Your task to perform on an android device: find photos in the google photos app Image 0: 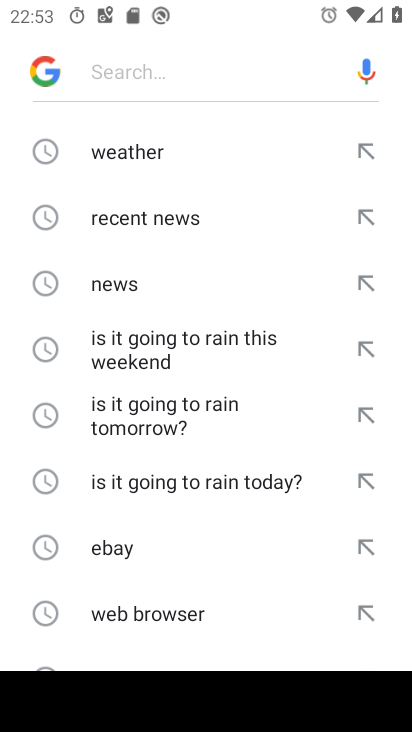
Step 0: press home button
Your task to perform on an android device: find photos in the google photos app Image 1: 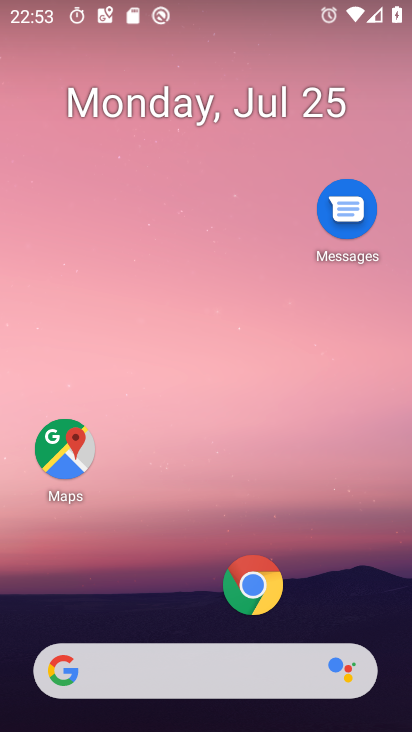
Step 1: drag from (152, 618) to (270, 150)
Your task to perform on an android device: find photos in the google photos app Image 2: 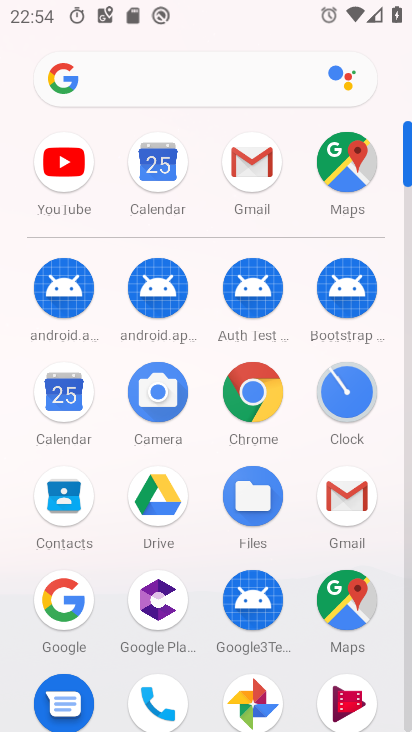
Step 2: drag from (212, 600) to (318, 153)
Your task to perform on an android device: find photos in the google photos app Image 3: 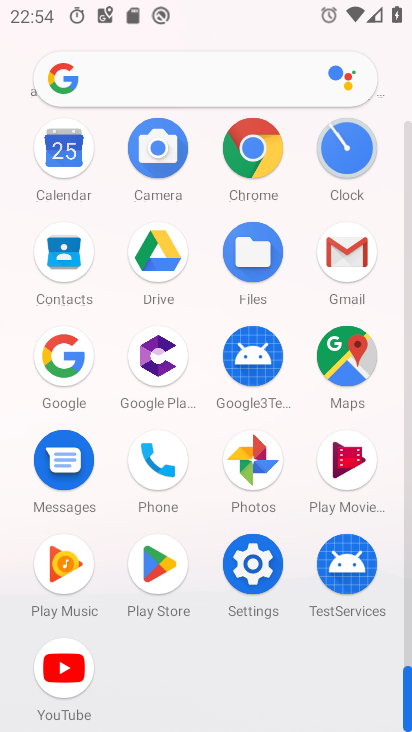
Step 3: click (244, 464)
Your task to perform on an android device: find photos in the google photos app Image 4: 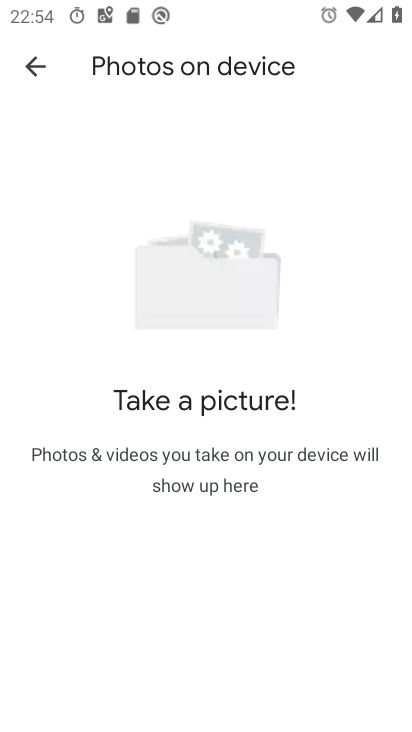
Step 4: click (37, 72)
Your task to perform on an android device: find photos in the google photos app Image 5: 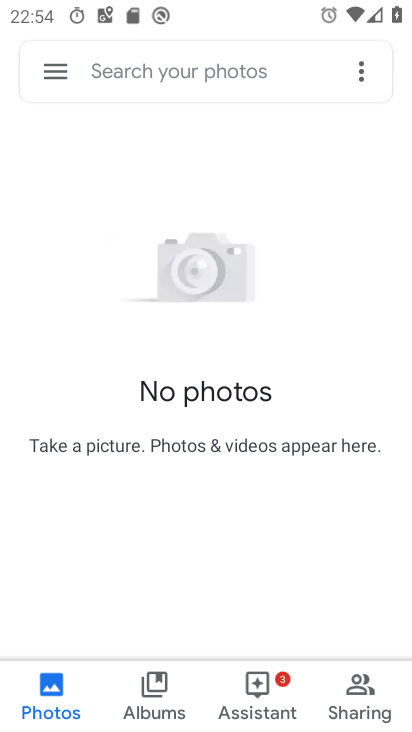
Step 5: task complete